Your task to perform on an android device: change the clock style Image 0: 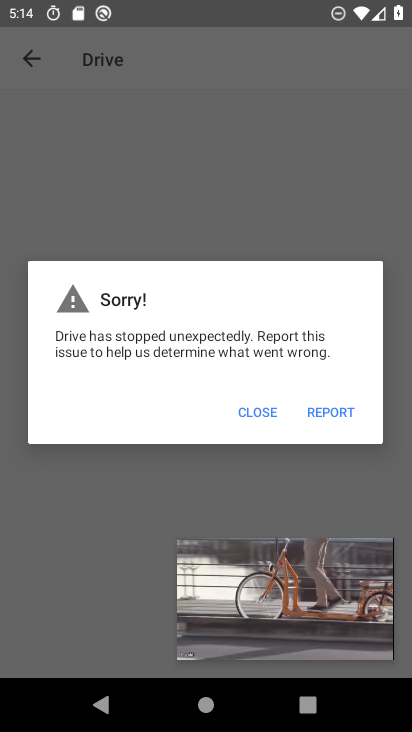
Step 0: click (256, 611)
Your task to perform on an android device: change the clock style Image 1: 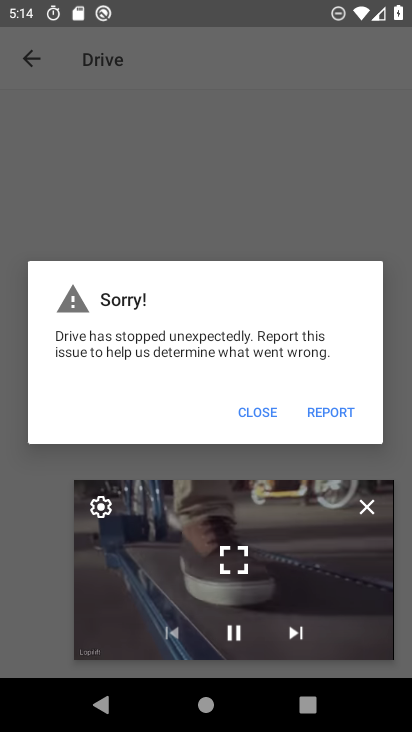
Step 1: click (371, 500)
Your task to perform on an android device: change the clock style Image 2: 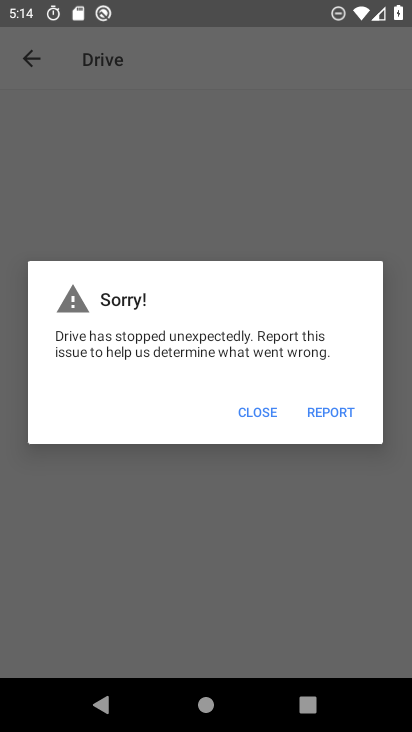
Step 2: click (252, 409)
Your task to perform on an android device: change the clock style Image 3: 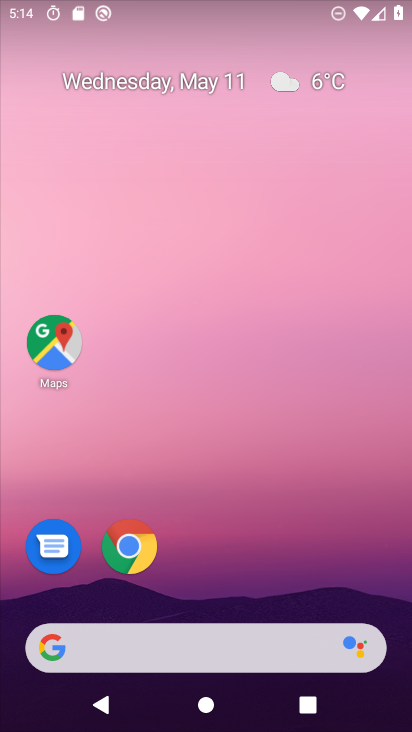
Step 3: drag from (239, 628) to (218, 290)
Your task to perform on an android device: change the clock style Image 4: 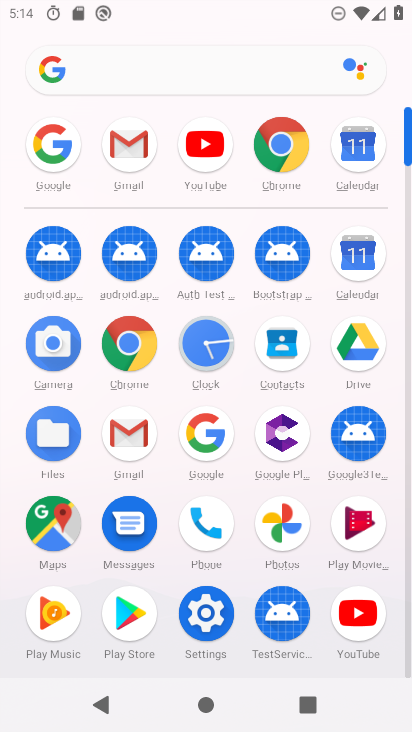
Step 4: click (206, 330)
Your task to perform on an android device: change the clock style Image 5: 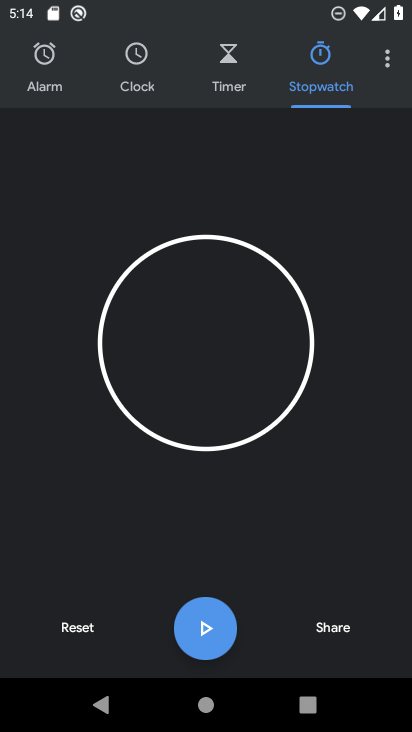
Step 5: click (385, 62)
Your task to perform on an android device: change the clock style Image 6: 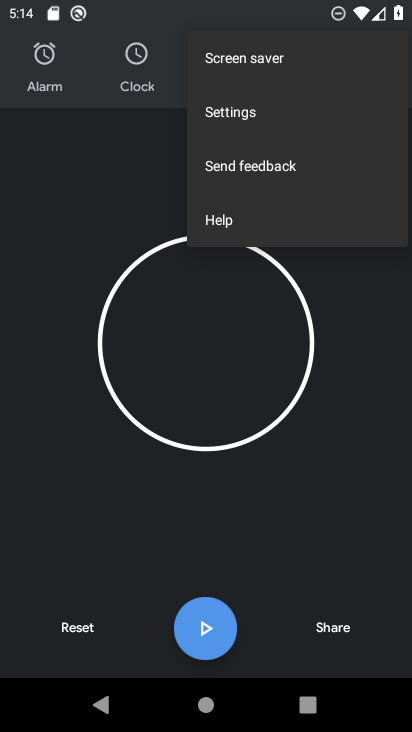
Step 6: click (260, 103)
Your task to perform on an android device: change the clock style Image 7: 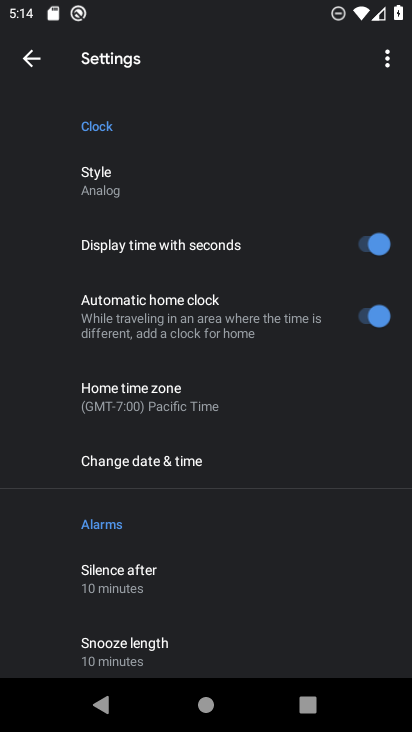
Step 7: click (77, 176)
Your task to perform on an android device: change the clock style Image 8: 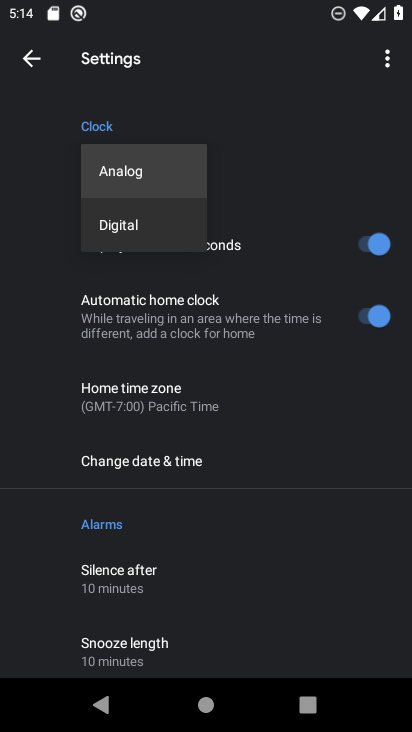
Step 8: click (118, 225)
Your task to perform on an android device: change the clock style Image 9: 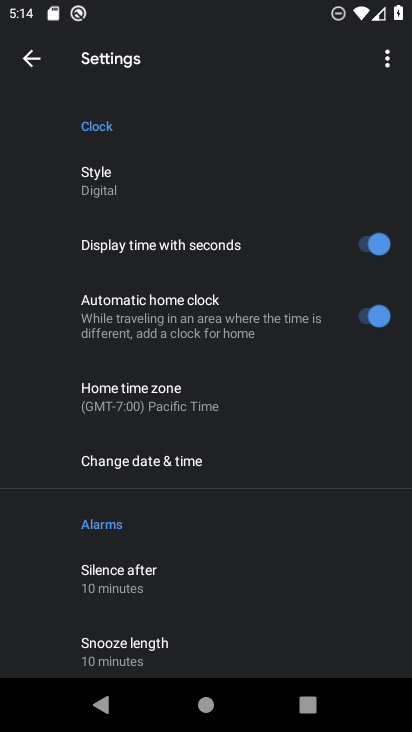
Step 9: task complete